Your task to perform on an android device: Go to Android settings Image 0: 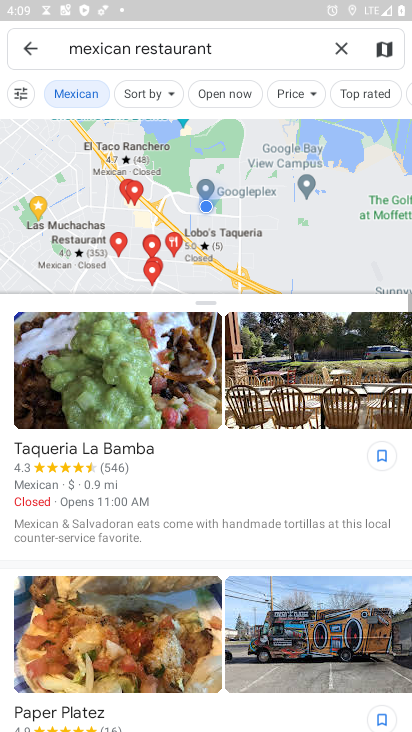
Step 0: press back button
Your task to perform on an android device: Go to Android settings Image 1: 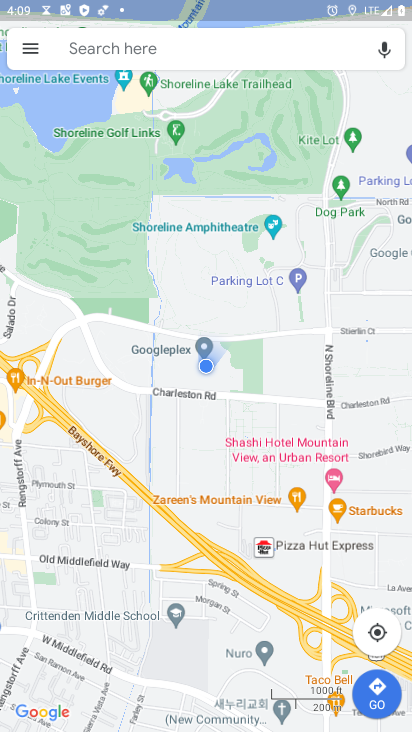
Step 1: press back button
Your task to perform on an android device: Go to Android settings Image 2: 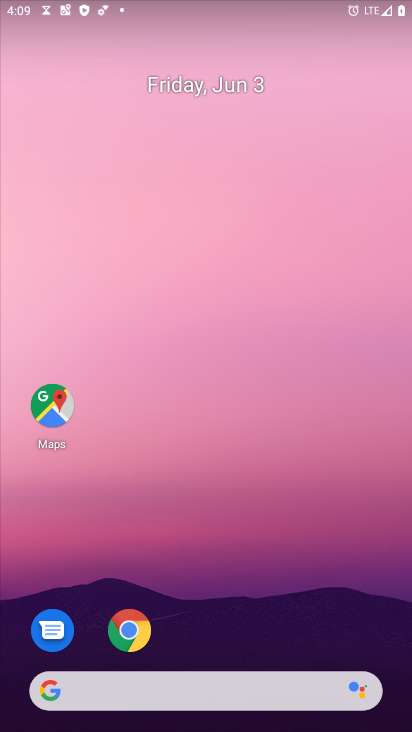
Step 2: drag from (263, 561) to (252, 15)
Your task to perform on an android device: Go to Android settings Image 3: 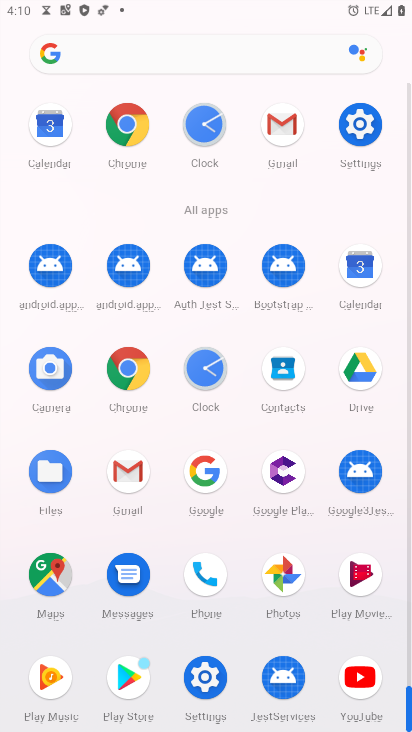
Step 3: click (204, 677)
Your task to perform on an android device: Go to Android settings Image 4: 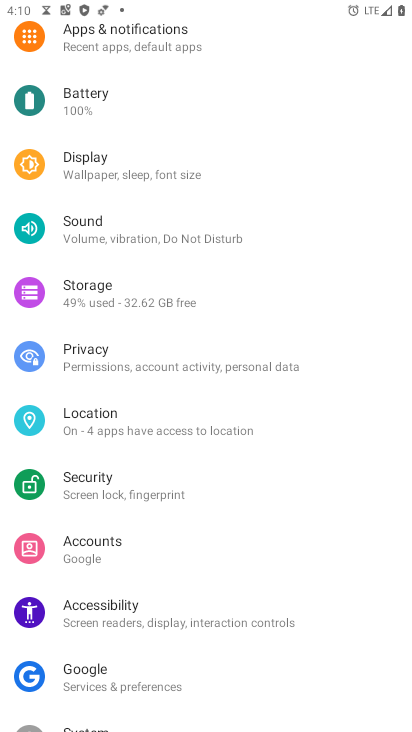
Step 4: task complete